Your task to perform on an android device: Search for bose soundlink mini on bestbuy.com, select the first entry, and add it to the cart. Image 0: 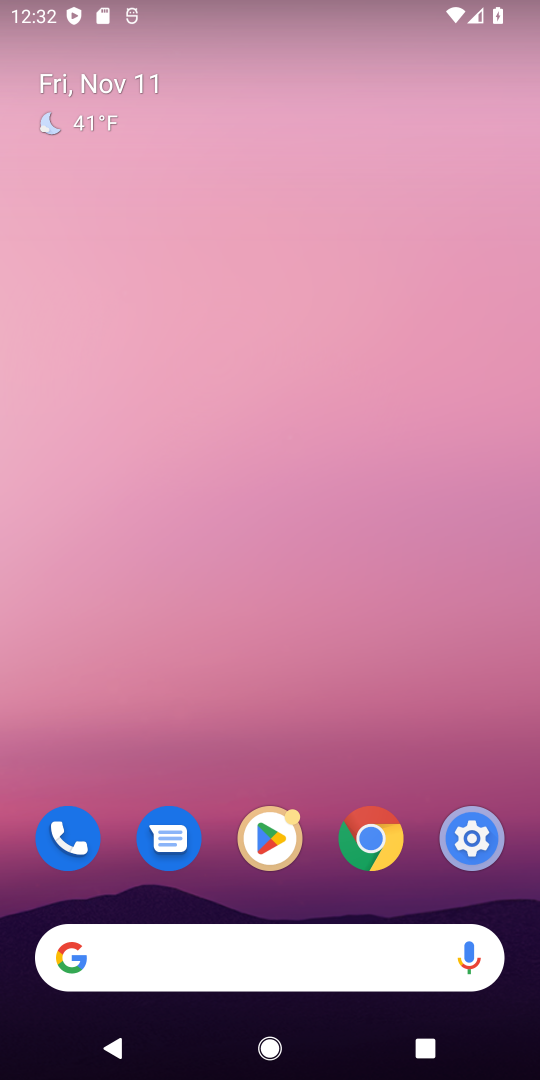
Step 0: click (358, 852)
Your task to perform on an android device: Search for bose soundlink mini on bestbuy.com, select the first entry, and add it to the cart. Image 1: 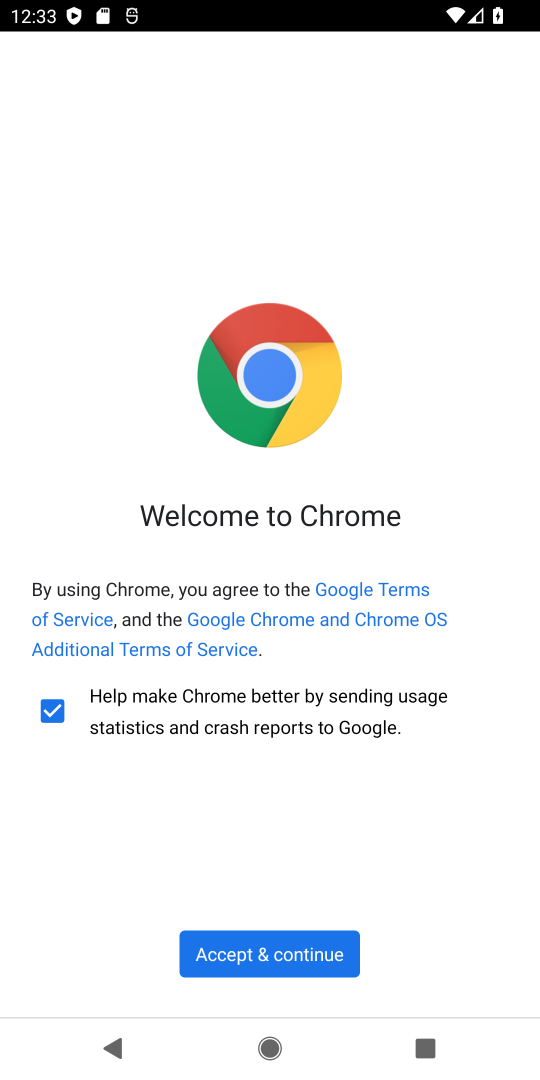
Step 1: click (216, 955)
Your task to perform on an android device: Search for bose soundlink mini on bestbuy.com, select the first entry, and add it to the cart. Image 2: 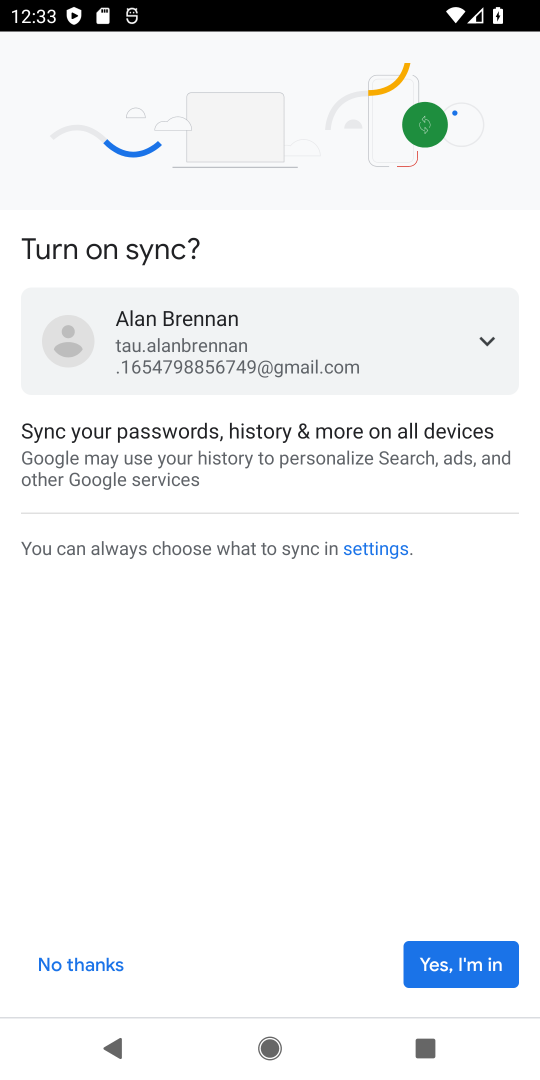
Step 2: click (446, 955)
Your task to perform on an android device: Search for bose soundlink mini on bestbuy.com, select the first entry, and add it to the cart. Image 3: 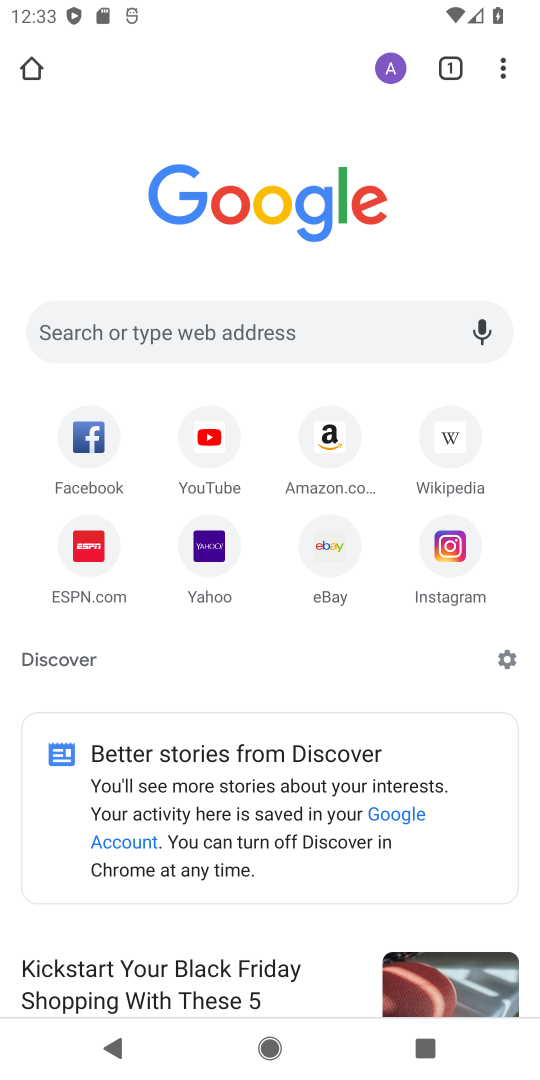
Step 3: click (129, 339)
Your task to perform on an android device: Search for bose soundlink mini on bestbuy.com, select the first entry, and add it to the cart. Image 4: 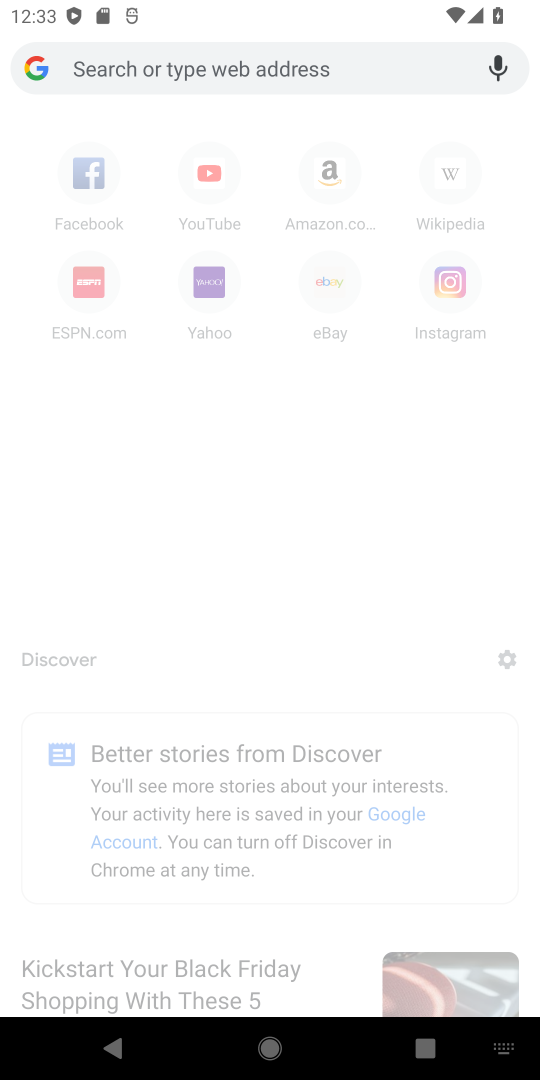
Step 4: type "bestbuy"
Your task to perform on an android device: Search for bose soundlink mini on bestbuy.com, select the first entry, and add it to the cart. Image 5: 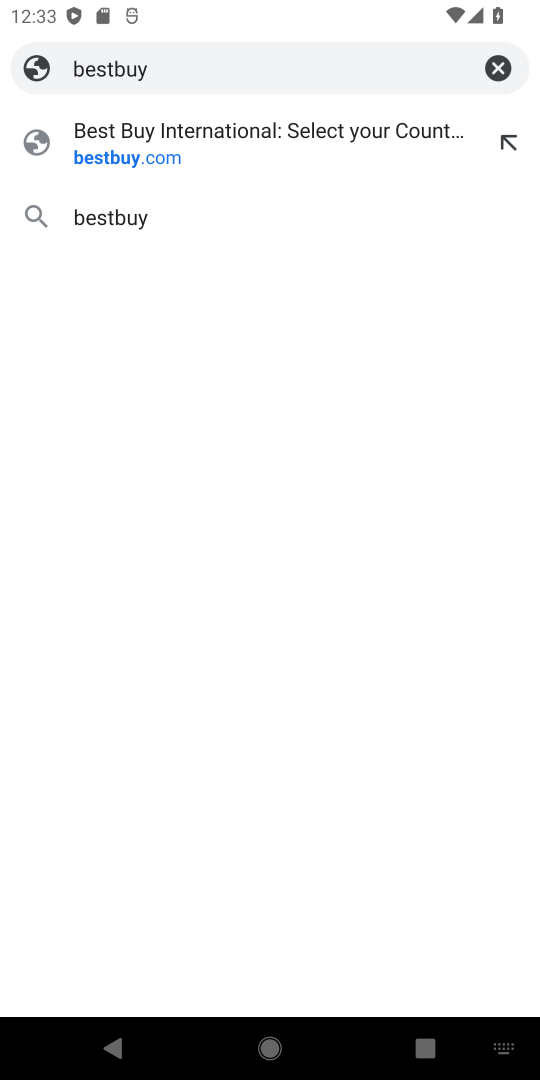
Step 5: click (119, 142)
Your task to perform on an android device: Search for bose soundlink mini on bestbuy.com, select the first entry, and add it to the cart. Image 6: 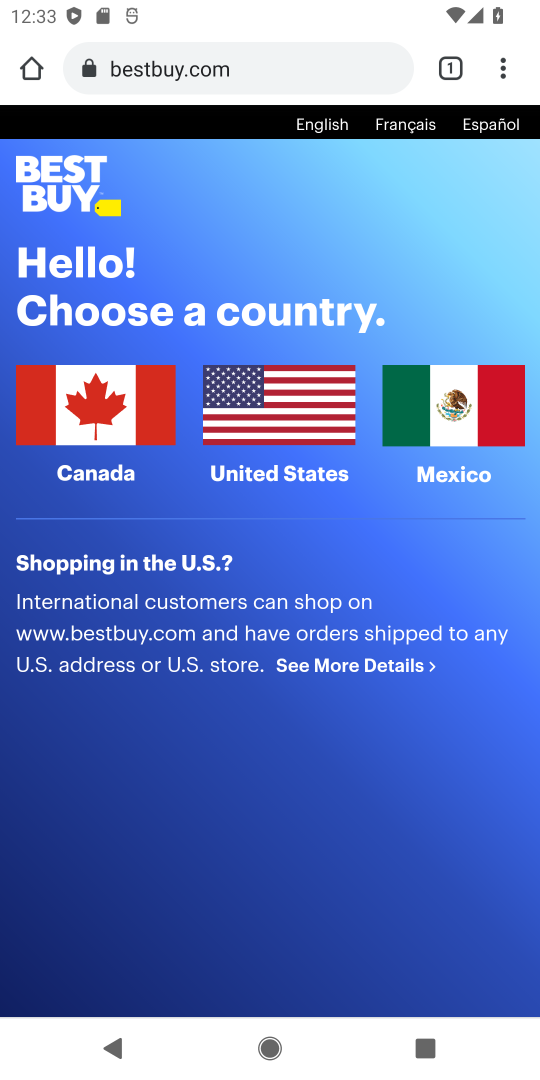
Step 6: click (275, 430)
Your task to perform on an android device: Search for bose soundlink mini on bestbuy.com, select the first entry, and add it to the cart. Image 7: 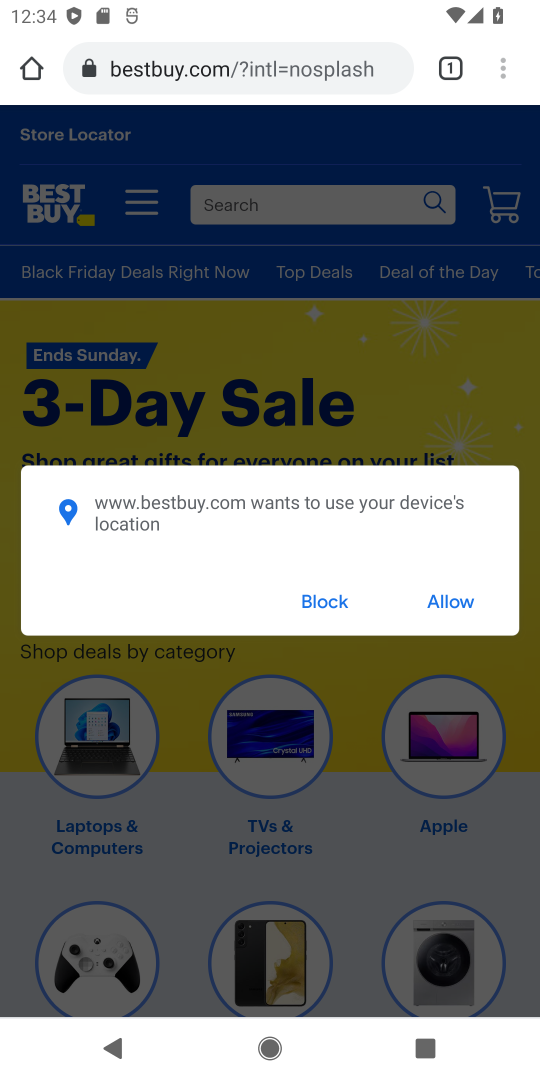
Step 7: click (308, 602)
Your task to perform on an android device: Search for bose soundlink mini on bestbuy.com, select the first entry, and add it to the cart. Image 8: 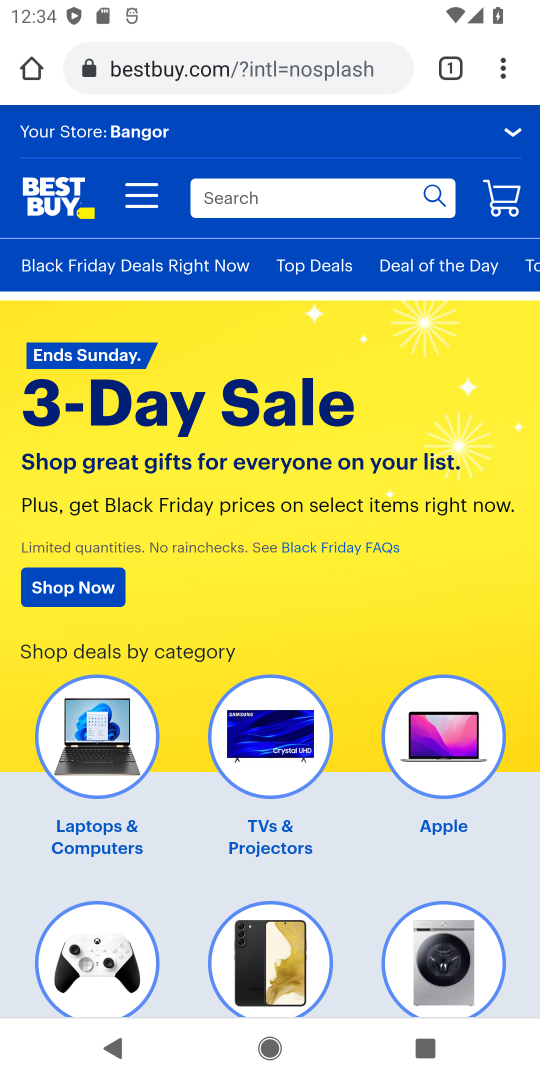
Step 8: click (241, 195)
Your task to perform on an android device: Search for bose soundlink mini on bestbuy.com, select the first entry, and add it to the cart. Image 9: 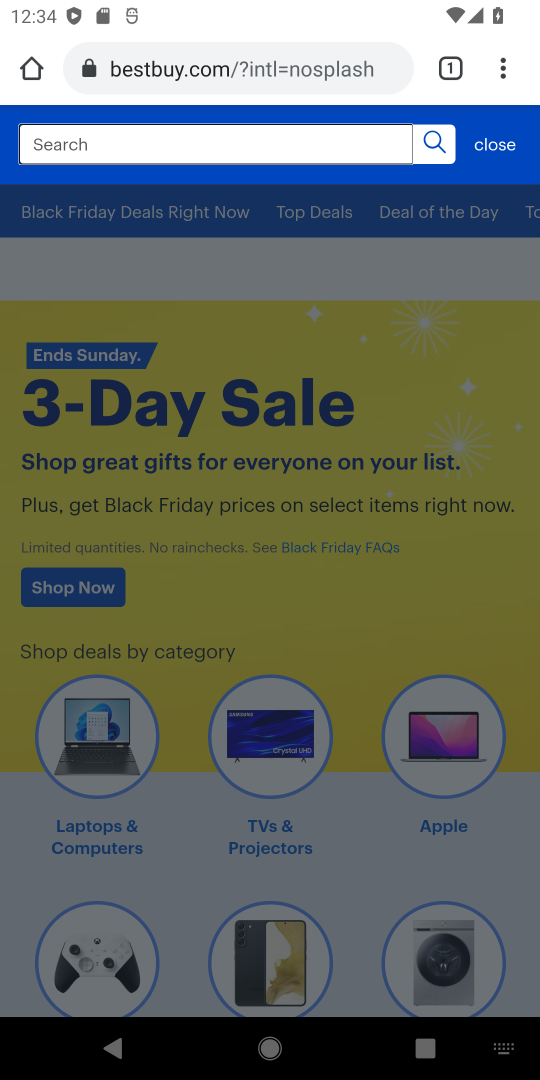
Step 9: type "bose soundlink mini "
Your task to perform on an android device: Search for bose soundlink mini on bestbuy.com, select the first entry, and add it to the cart. Image 10: 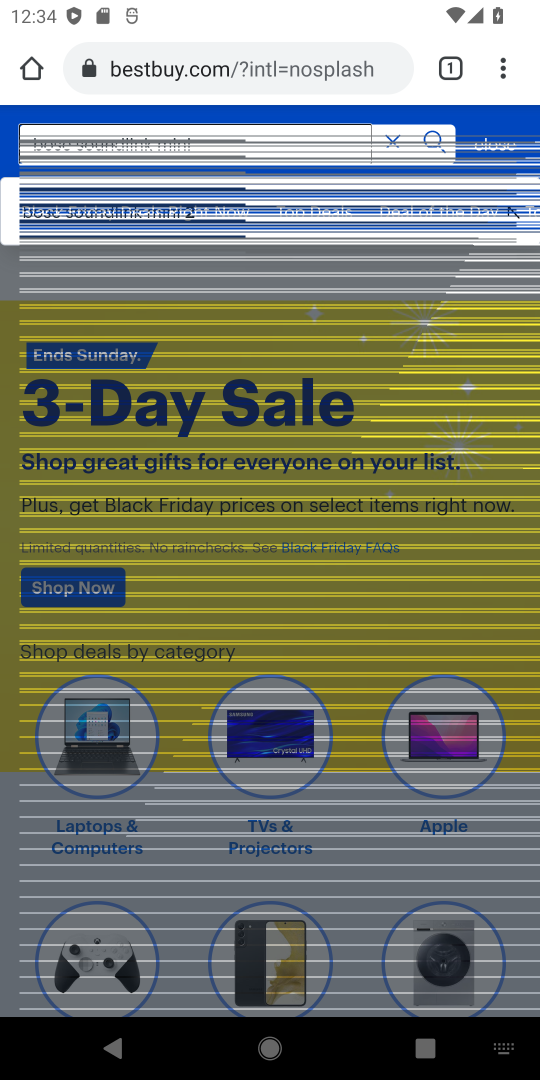
Step 10: click (145, 203)
Your task to perform on an android device: Search for bose soundlink mini on bestbuy.com, select the first entry, and add it to the cart. Image 11: 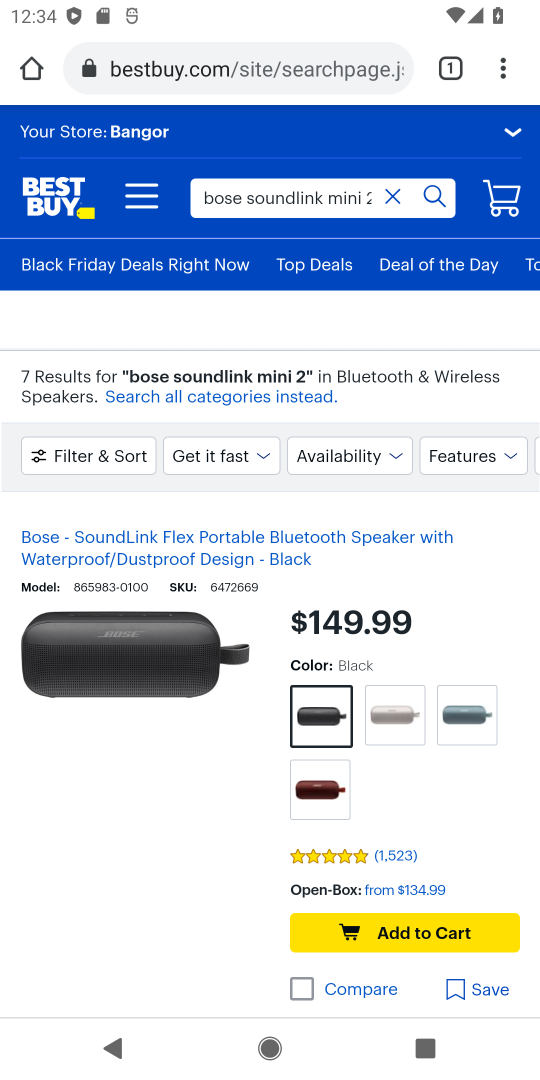
Step 11: click (391, 988)
Your task to perform on an android device: Search for bose soundlink mini on bestbuy.com, select the first entry, and add it to the cart. Image 12: 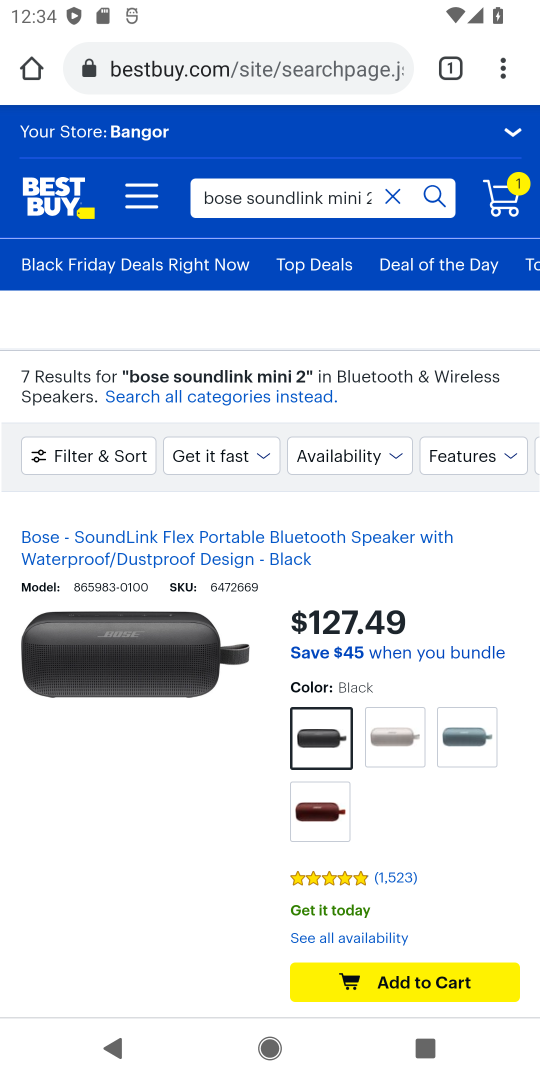
Step 12: task complete